Your task to perform on an android device: turn off location history Image 0: 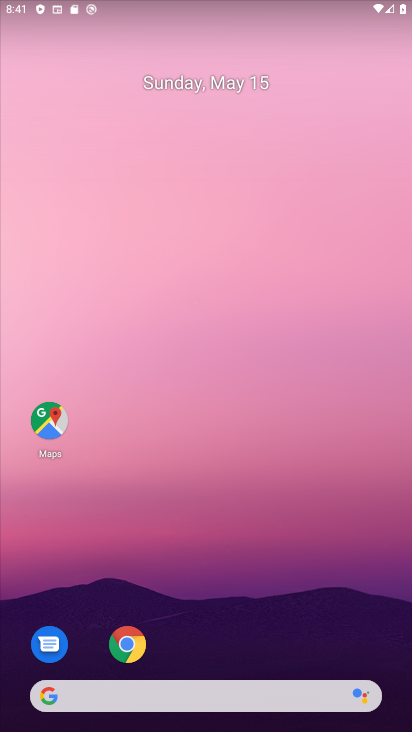
Step 0: drag from (216, 665) to (206, 11)
Your task to perform on an android device: turn off location history Image 1: 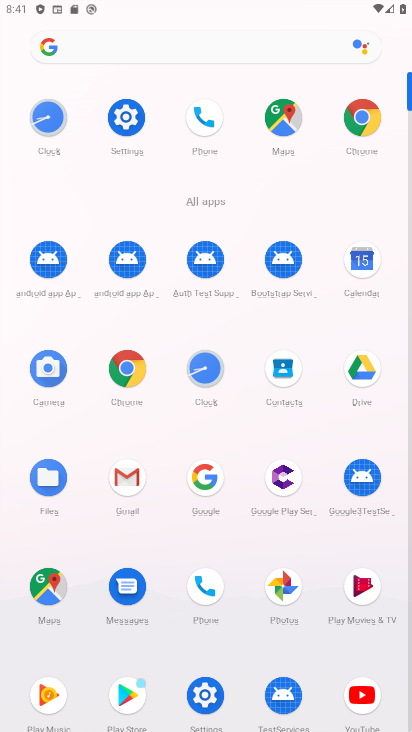
Step 1: click (127, 126)
Your task to perform on an android device: turn off location history Image 2: 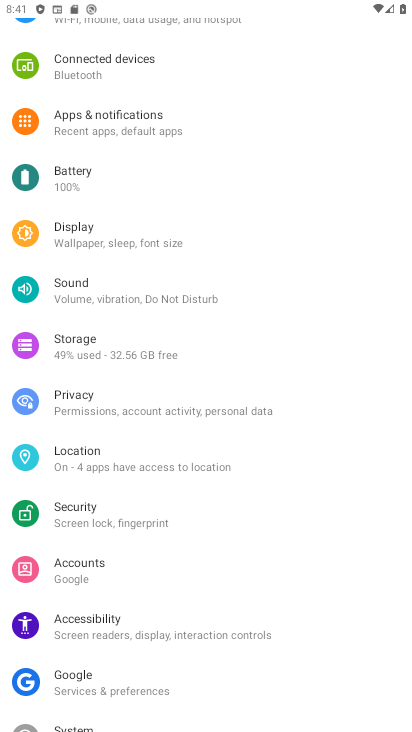
Step 2: click (107, 447)
Your task to perform on an android device: turn off location history Image 3: 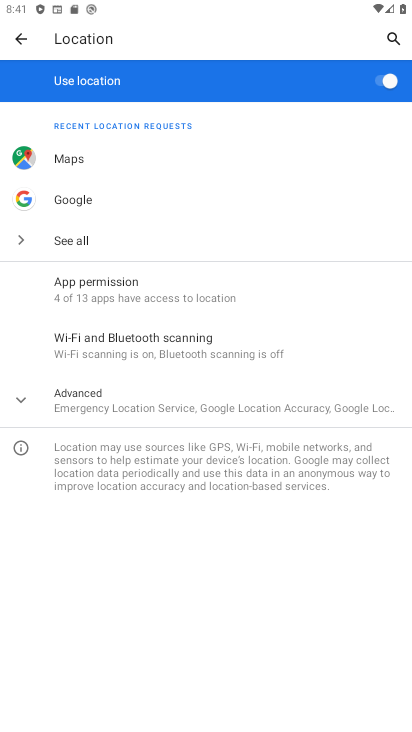
Step 3: click (141, 402)
Your task to perform on an android device: turn off location history Image 4: 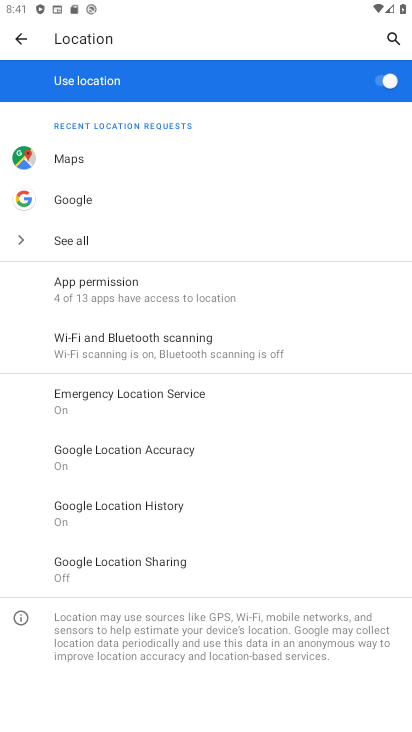
Step 4: click (184, 507)
Your task to perform on an android device: turn off location history Image 5: 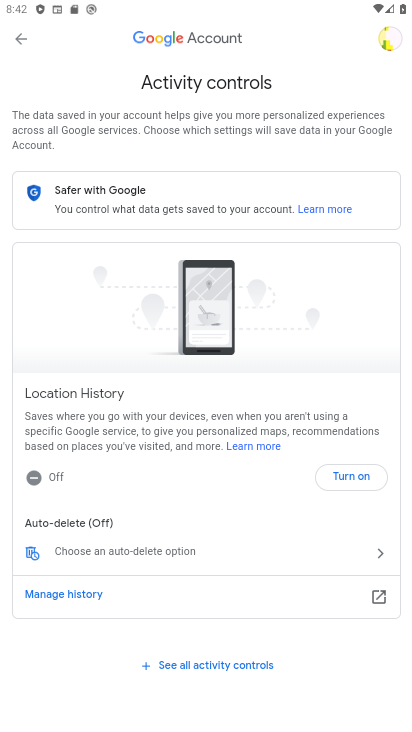
Step 5: task complete